Your task to perform on an android device: star an email in the gmail app Image 0: 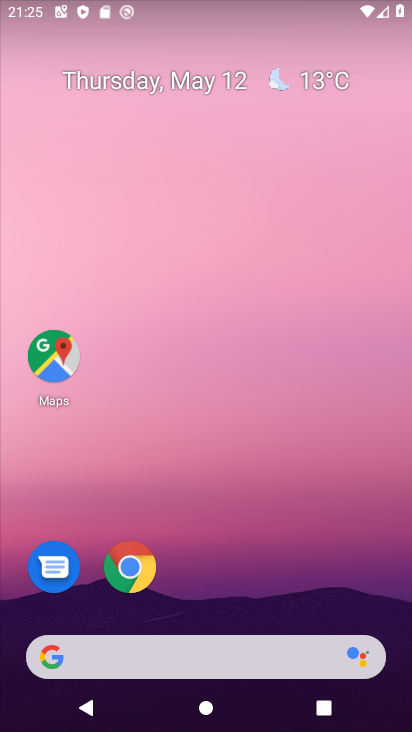
Step 0: drag from (230, 608) to (242, 37)
Your task to perform on an android device: star an email in the gmail app Image 1: 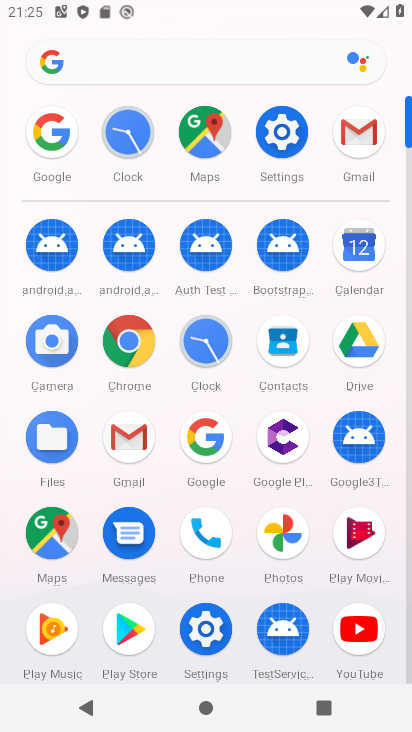
Step 1: click (126, 431)
Your task to perform on an android device: star an email in the gmail app Image 2: 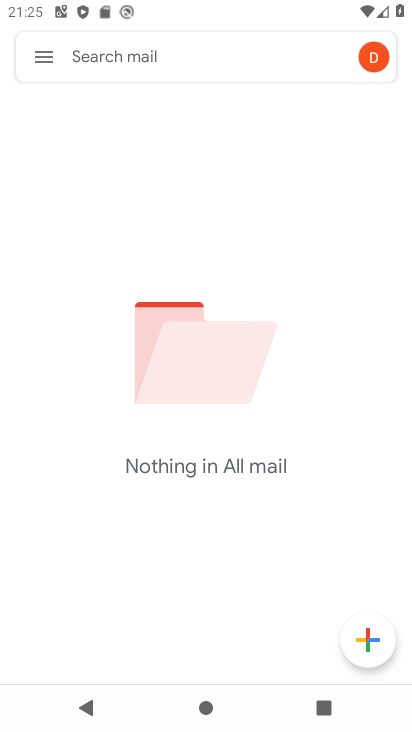
Step 2: task complete